Your task to perform on an android device: Open Google Chrome and open the bookmarks view Image 0: 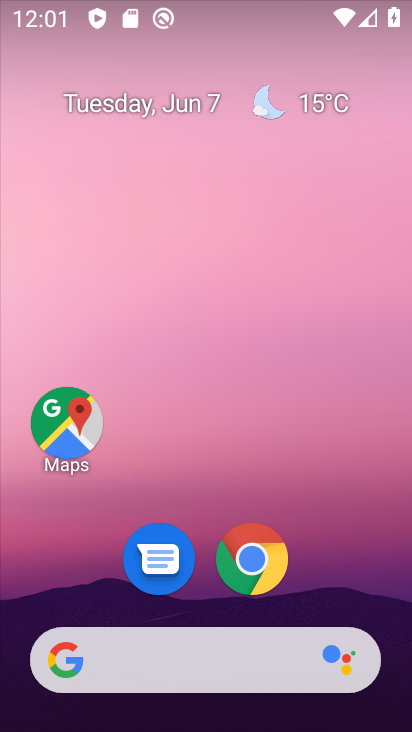
Step 0: click (254, 559)
Your task to perform on an android device: Open Google Chrome and open the bookmarks view Image 1: 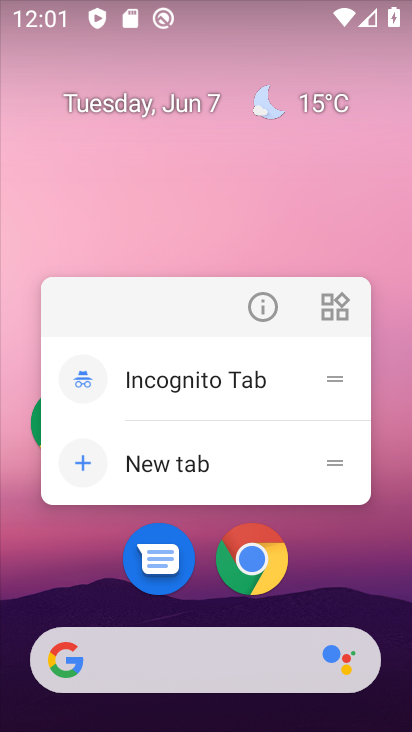
Step 1: click (253, 558)
Your task to perform on an android device: Open Google Chrome and open the bookmarks view Image 2: 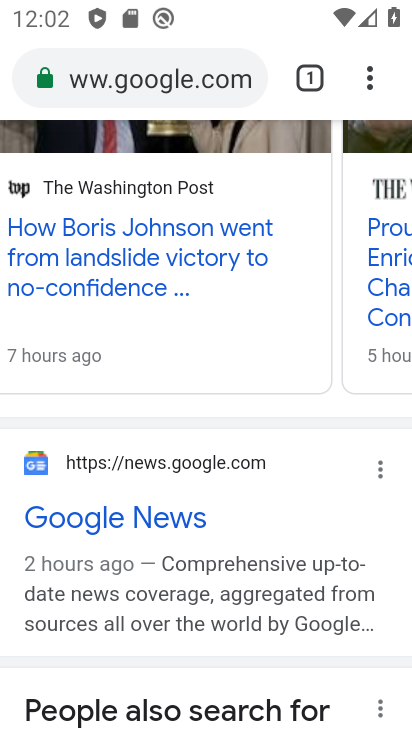
Step 2: click (369, 76)
Your task to perform on an android device: Open Google Chrome and open the bookmarks view Image 3: 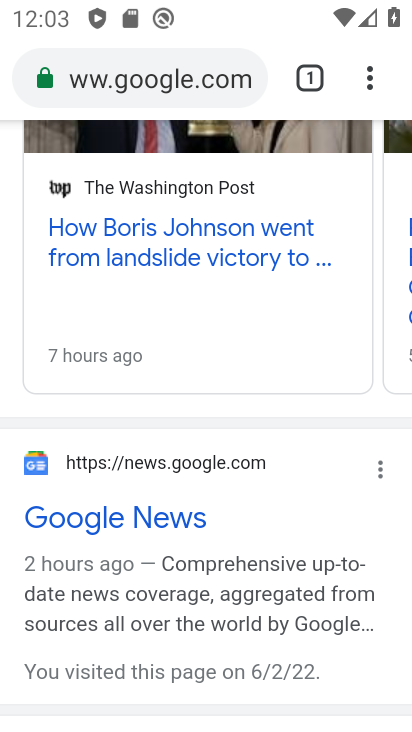
Step 3: click (375, 80)
Your task to perform on an android device: Open Google Chrome and open the bookmarks view Image 4: 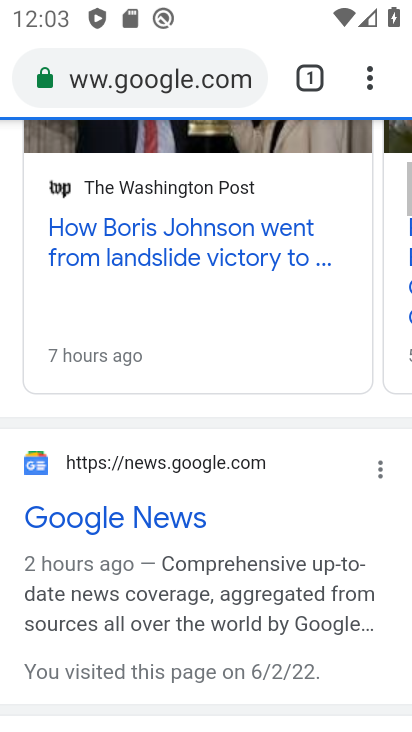
Step 4: click (372, 86)
Your task to perform on an android device: Open Google Chrome and open the bookmarks view Image 5: 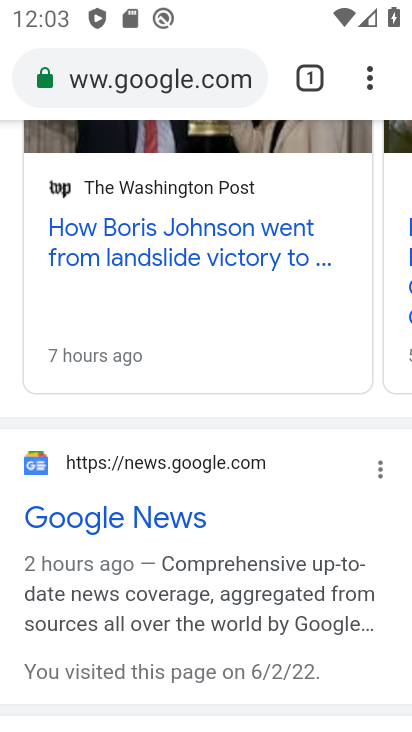
Step 5: click (369, 87)
Your task to perform on an android device: Open Google Chrome and open the bookmarks view Image 6: 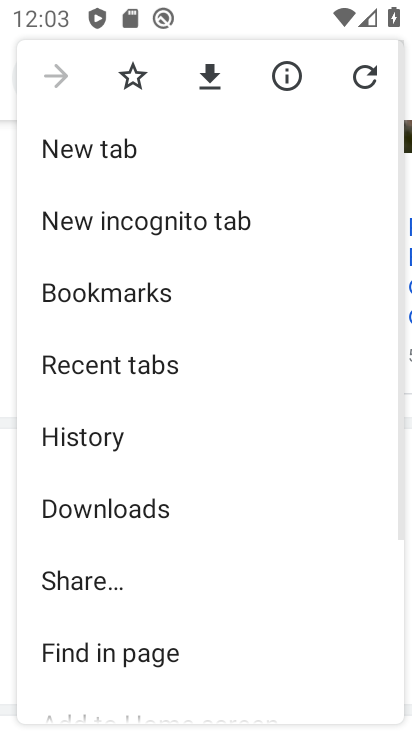
Step 6: click (101, 296)
Your task to perform on an android device: Open Google Chrome and open the bookmarks view Image 7: 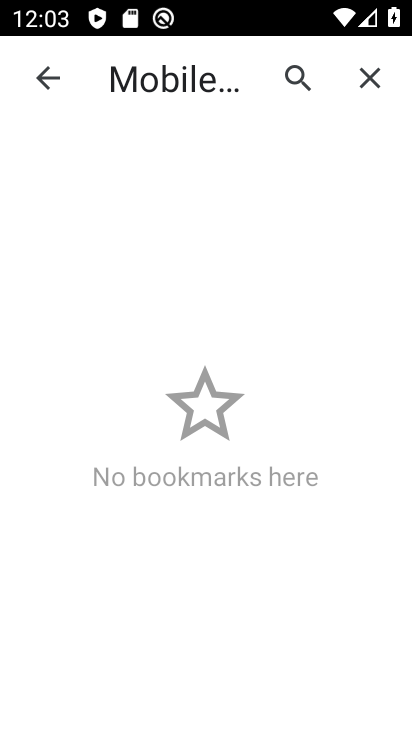
Step 7: task complete